Your task to perform on an android device: install app "Firefox Browser" Image 0: 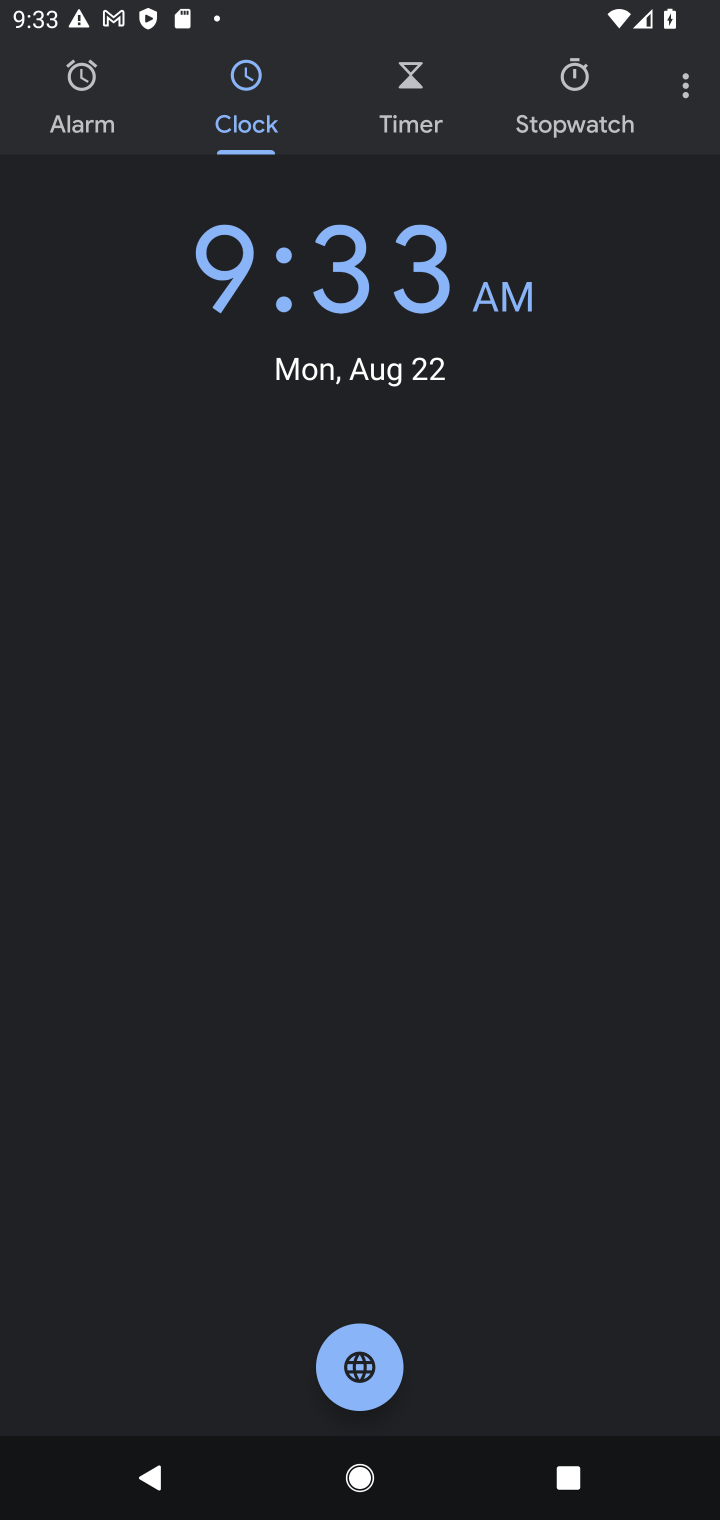
Step 0: press home button
Your task to perform on an android device: install app "Firefox Browser" Image 1: 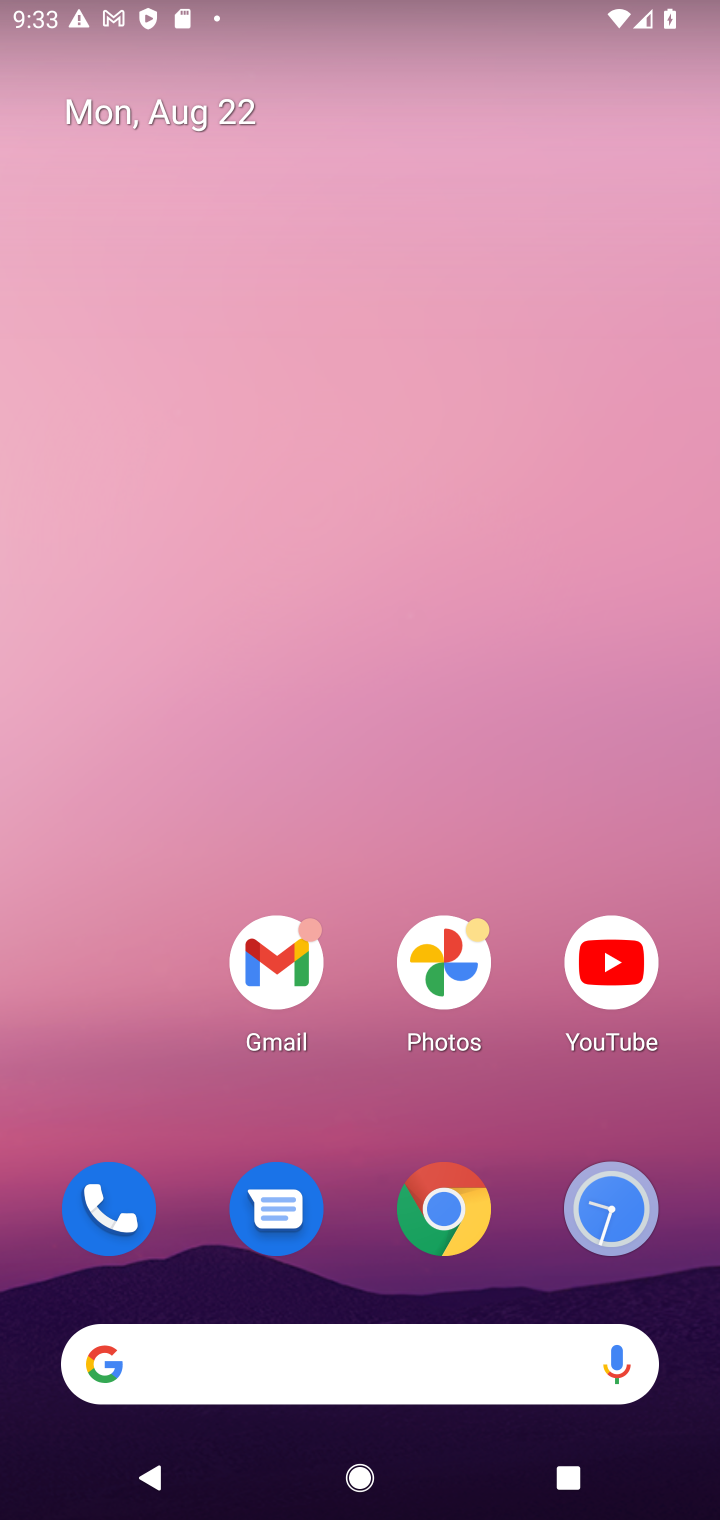
Step 1: drag from (356, 1316) to (392, 313)
Your task to perform on an android device: install app "Firefox Browser" Image 2: 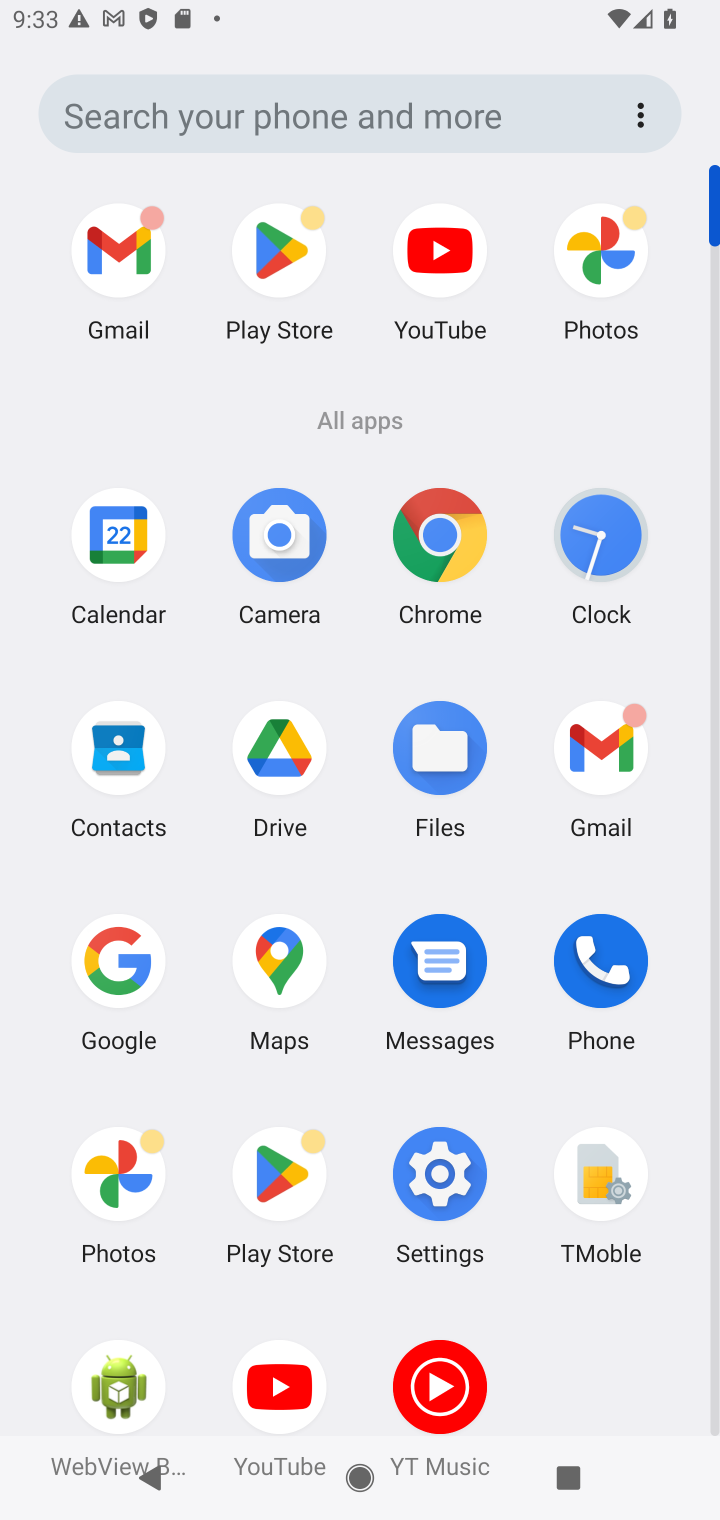
Step 2: click (289, 1190)
Your task to perform on an android device: install app "Firefox Browser" Image 3: 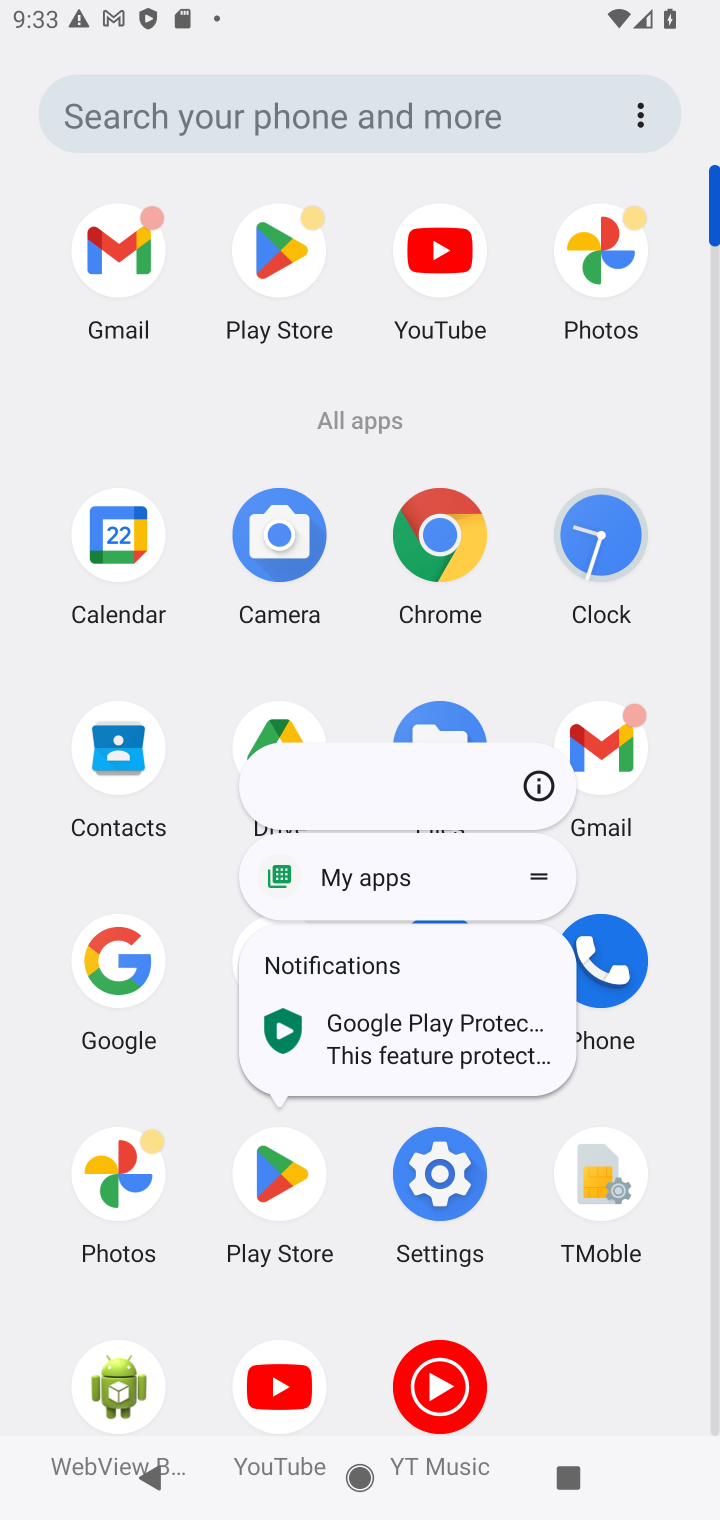
Step 3: click (643, 1405)
Your task to perform on an android device: install app "Firefox Browser" Image 4: 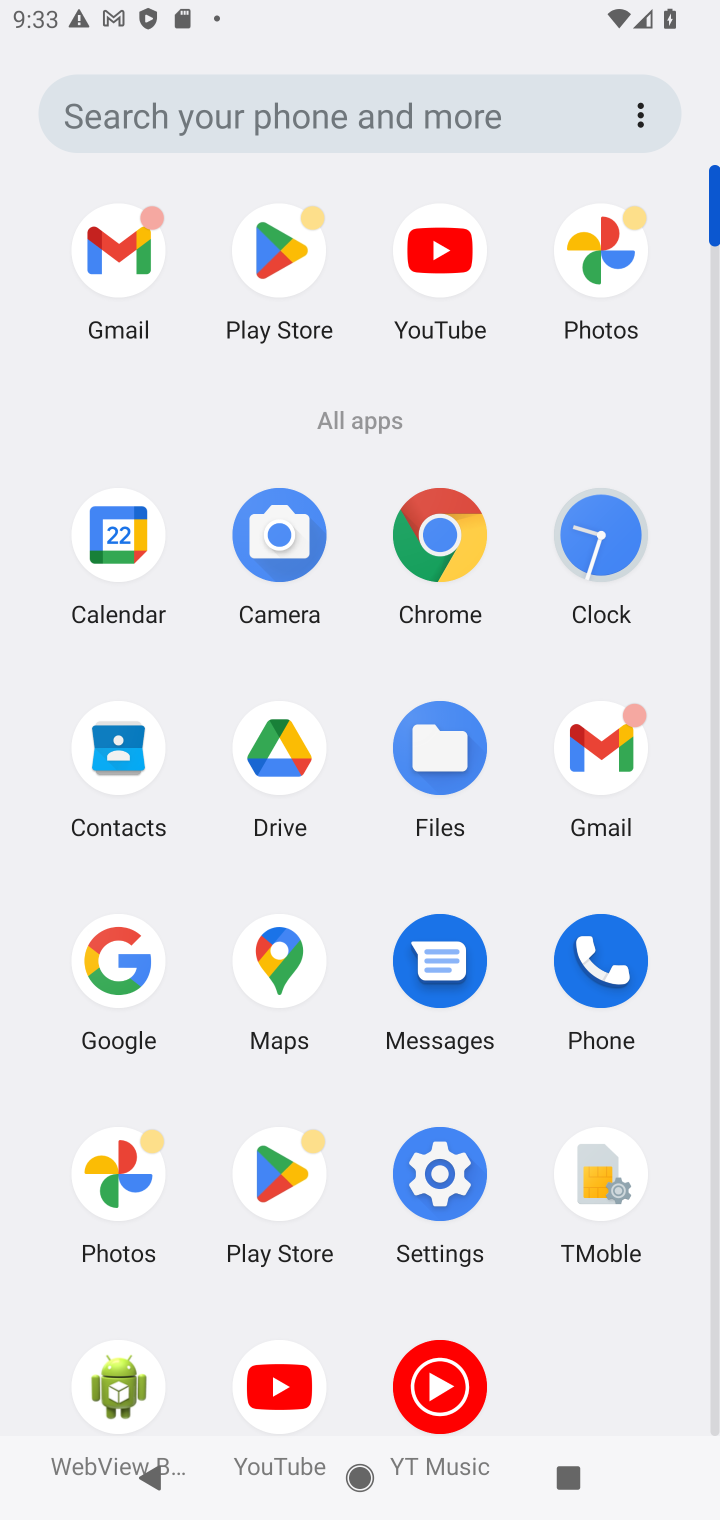
Step 4: click (267, 1197)
Your task to perform on an android device: install app "Firefox Browser" Image 5: 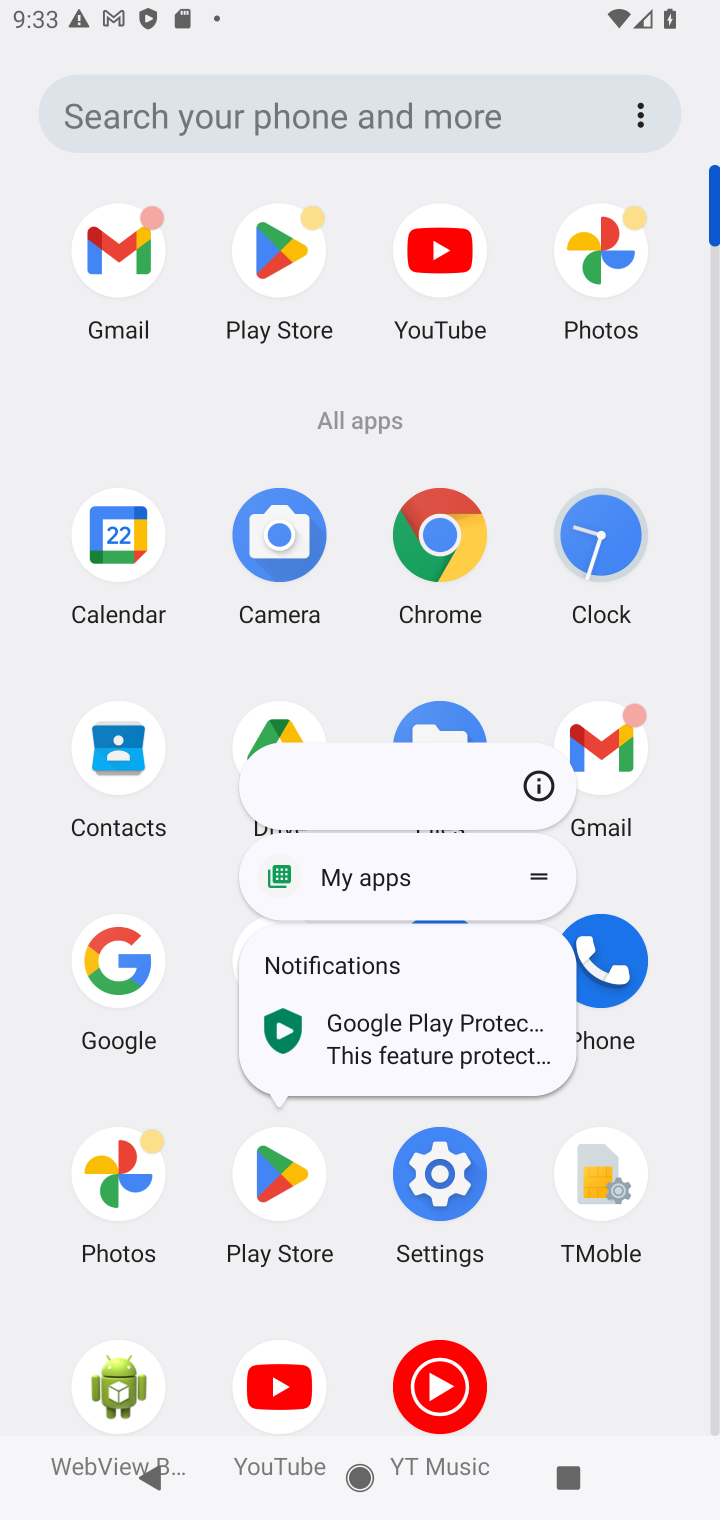
Step 5: click (277, 1168)
Your task to perform on an android device: install app "Firefox Browser" Image 6: 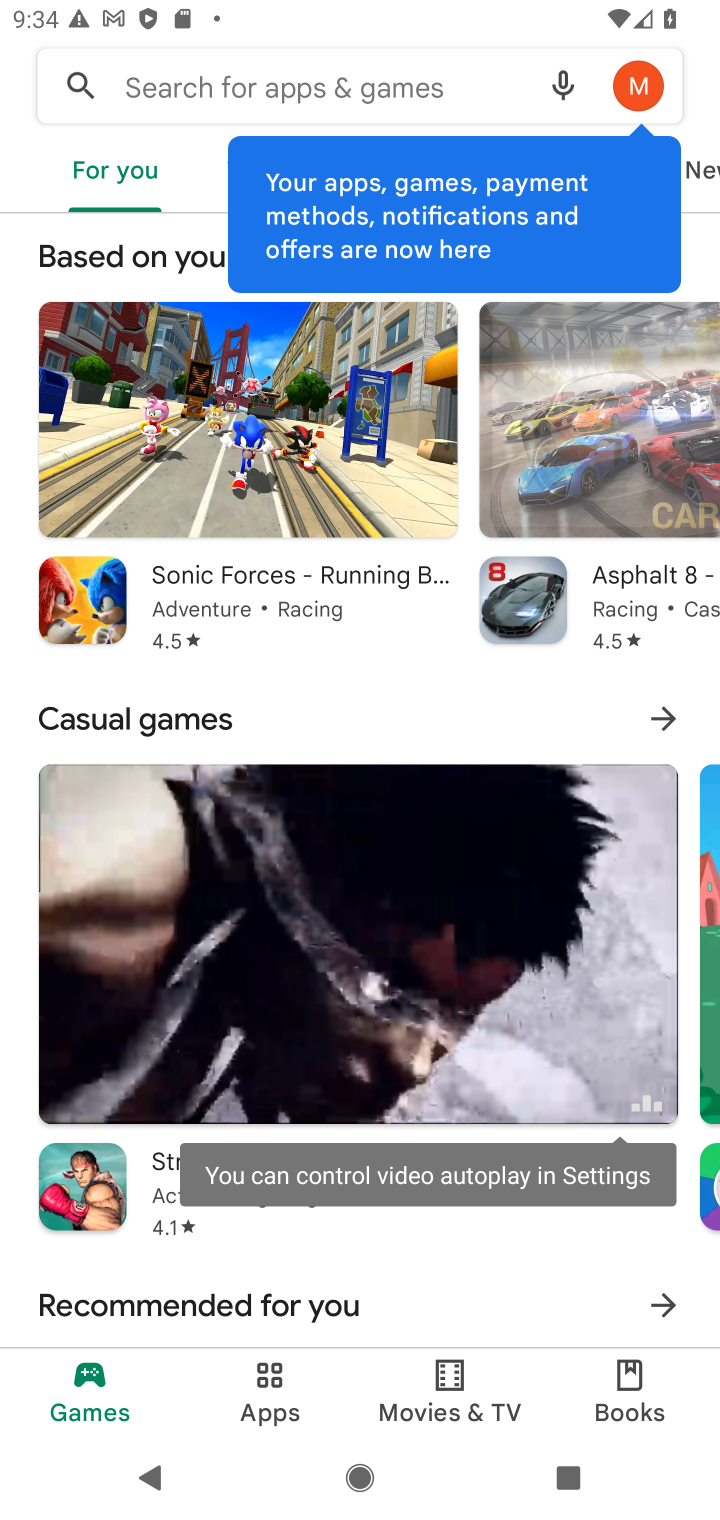
Step 6: click (193, 91)
Your task to perform on an android device: install app "Firefox Browser" Image 7: 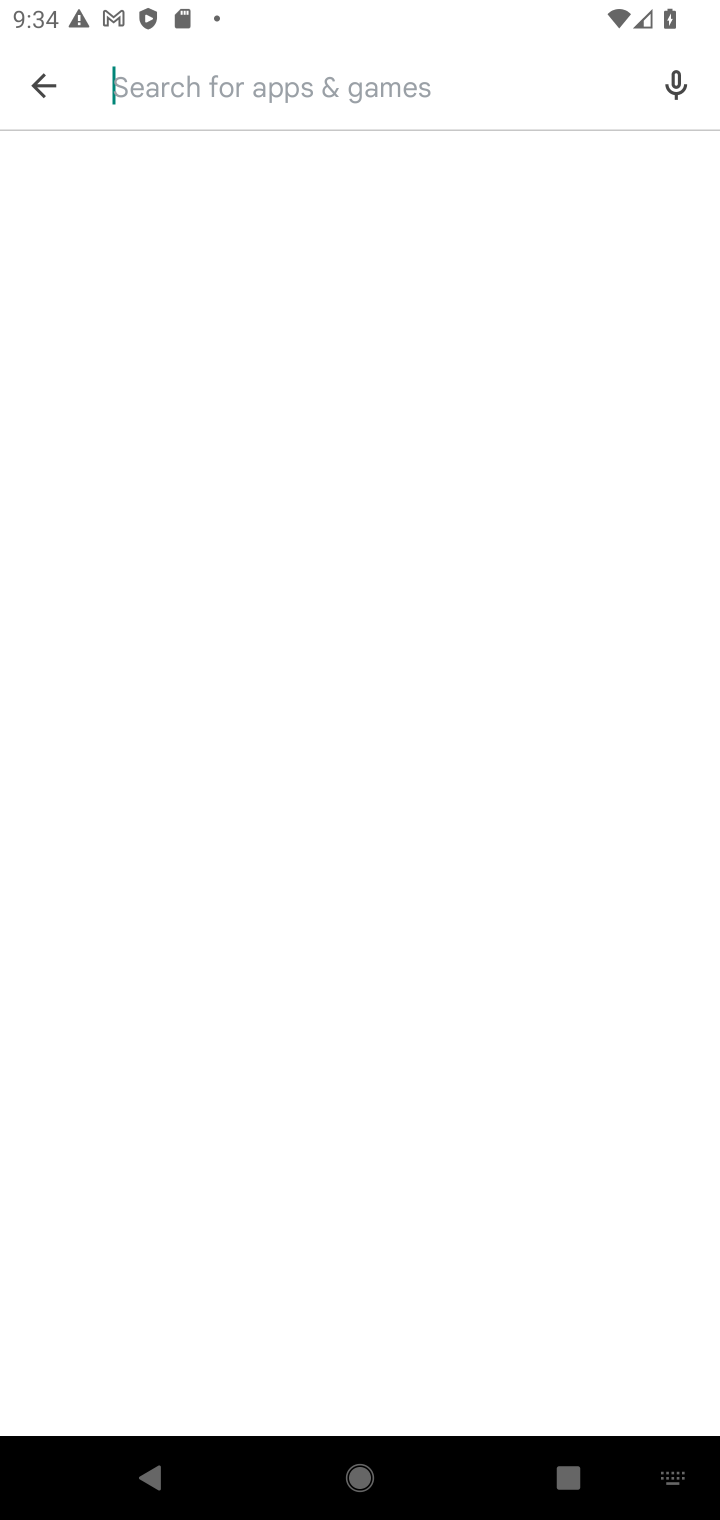
Step 7: type "Firefox Browser"
Your task to perform on an android device: install app "Firefox Browser" Image 8: 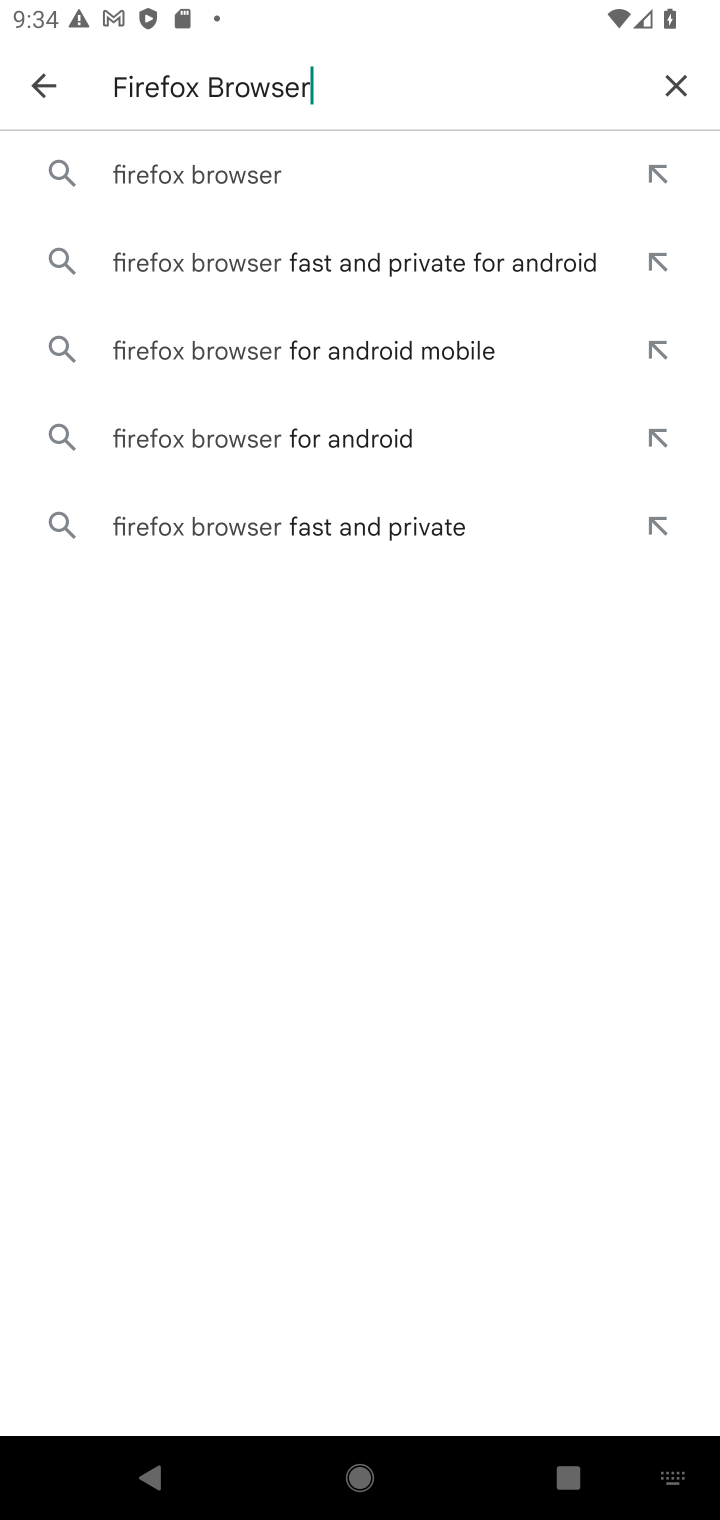
Step 8: click (265, 162)
Your task to perform on an android device: install app "Firefox Browser" Image 9: 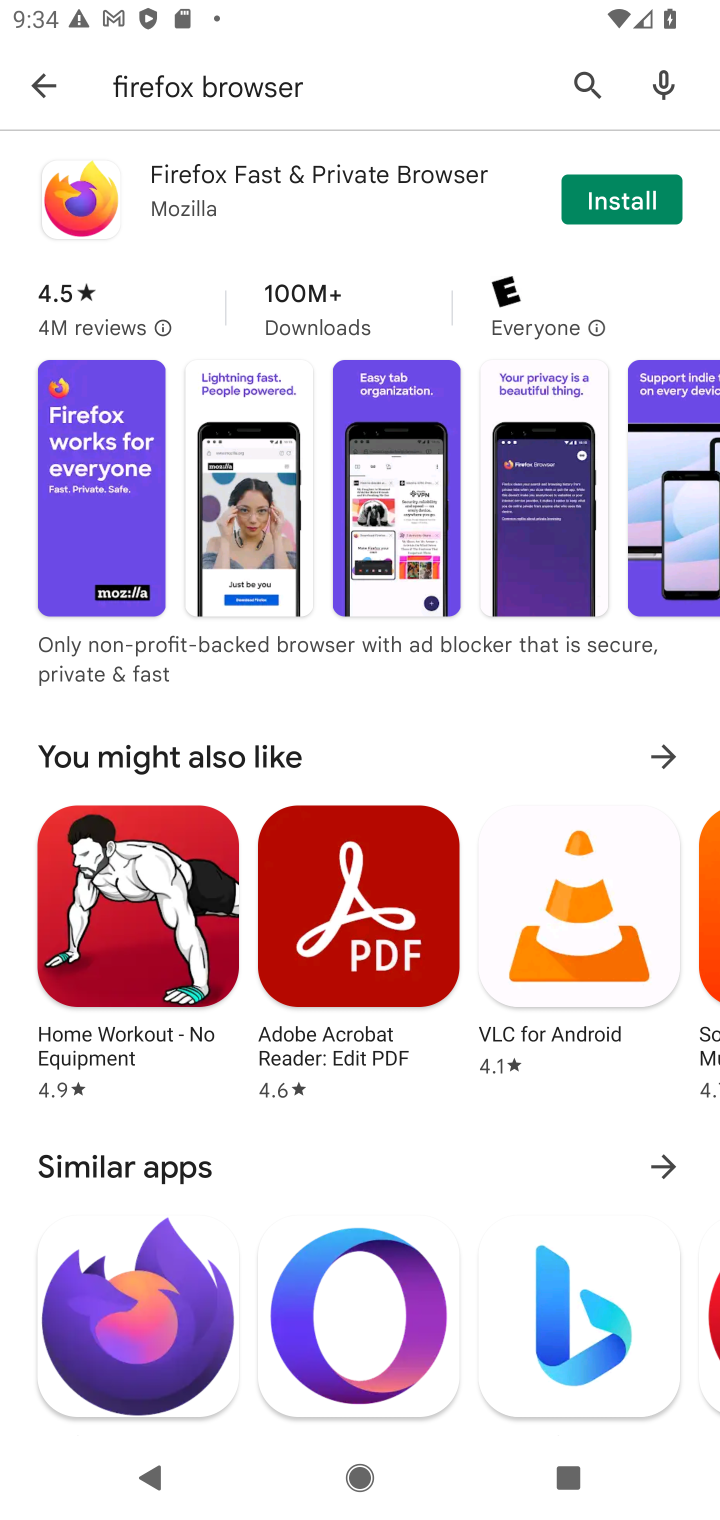
Step 9: click (597, 192)
Your task to perform on an android device: install app "Firefox Browser" Image 10: 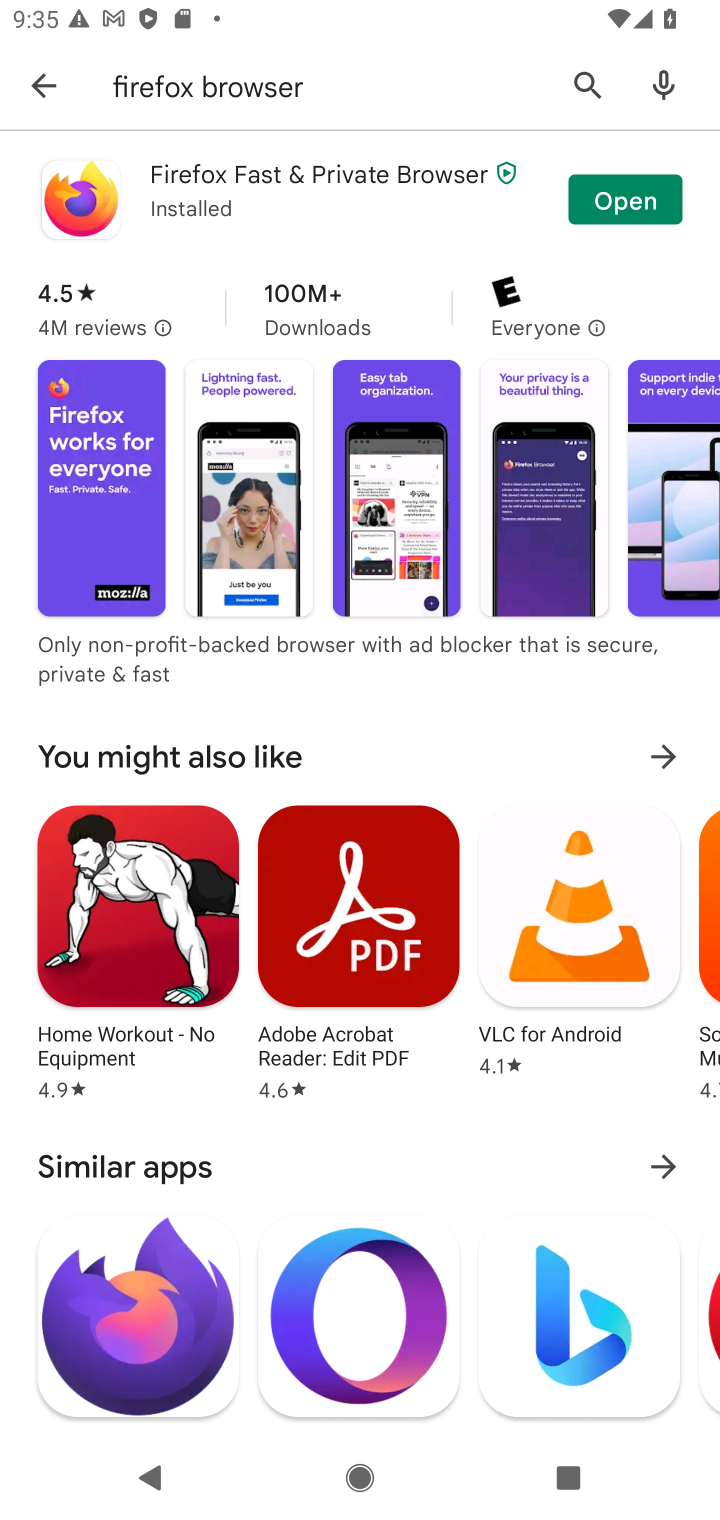
Step 10: click (597, 197)
Your task to perform on an android device: install app "Firefox Browser" Image 11: 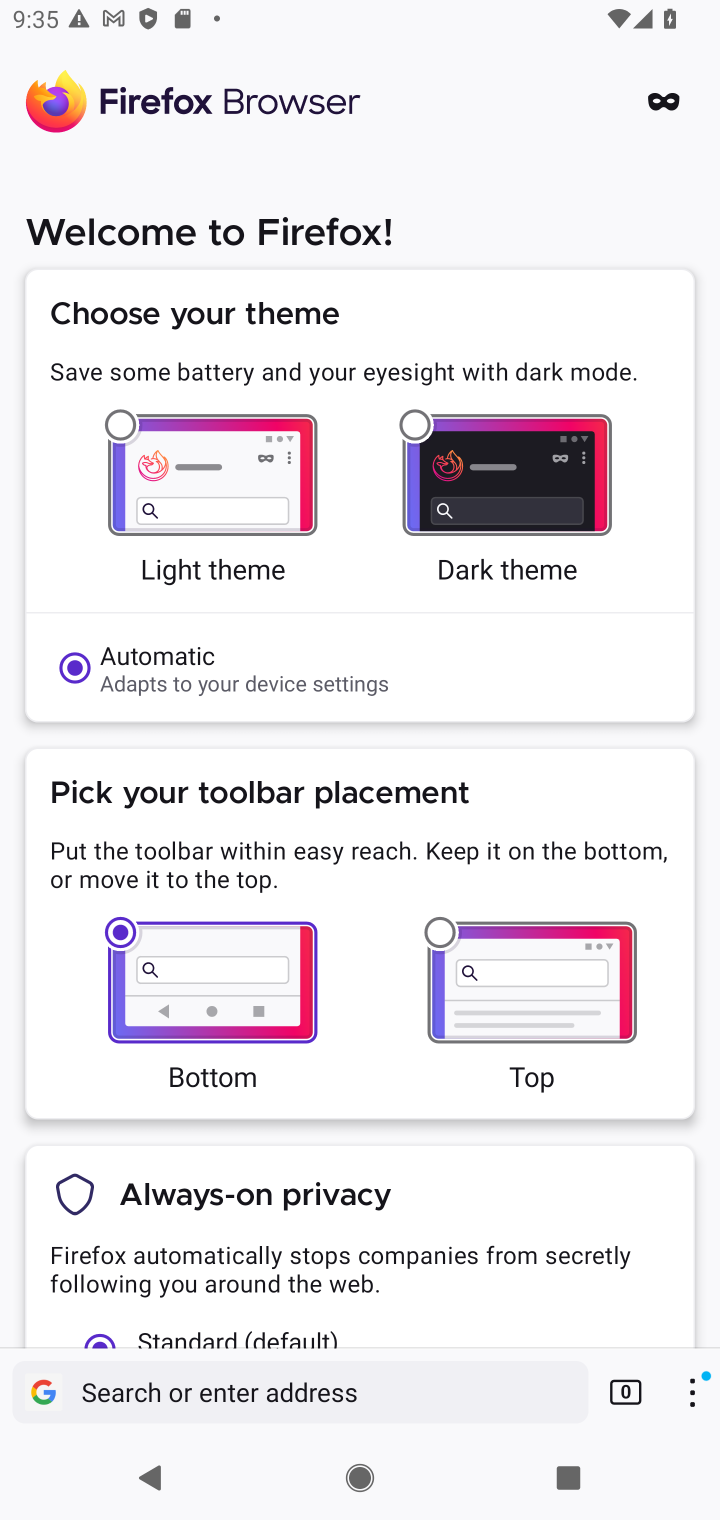
Step 11: task complete